Your task to perform on an android device: Go to notification settings Image 0: 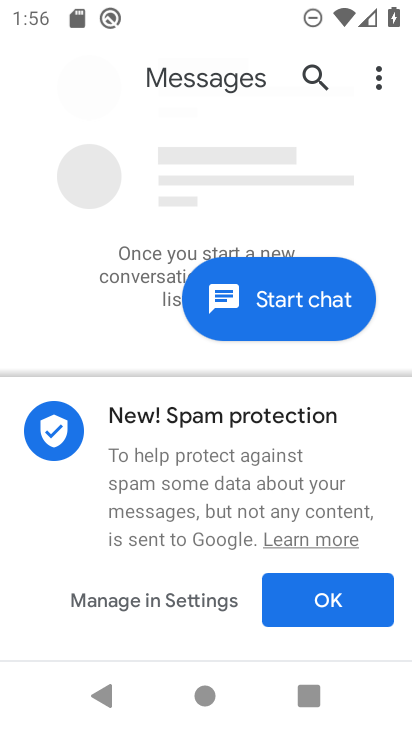
Step 0: press home button
Your task to perform on an android device: Go to notification settings Image 1: 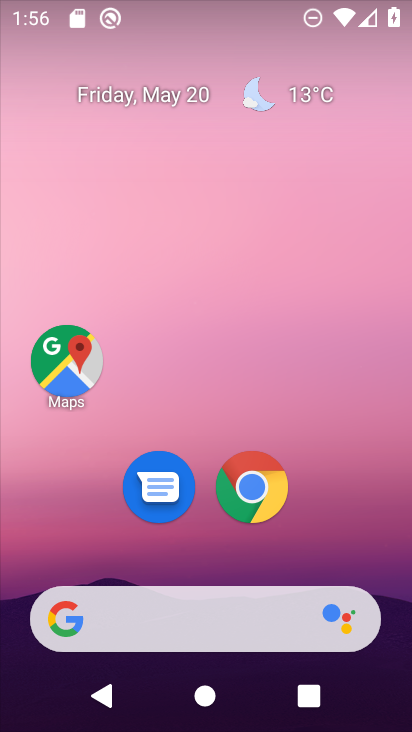
Step 1: drag from (222, 486) to (255, 143)
Your task to perform on an android device: Go to notification settings Image 2: 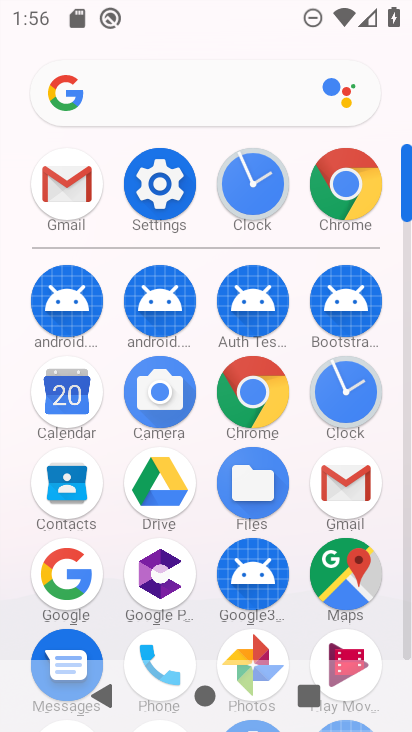
Step 2: click (157, 181)
Your task to perform on an android device: Go to notification settings Image 3: 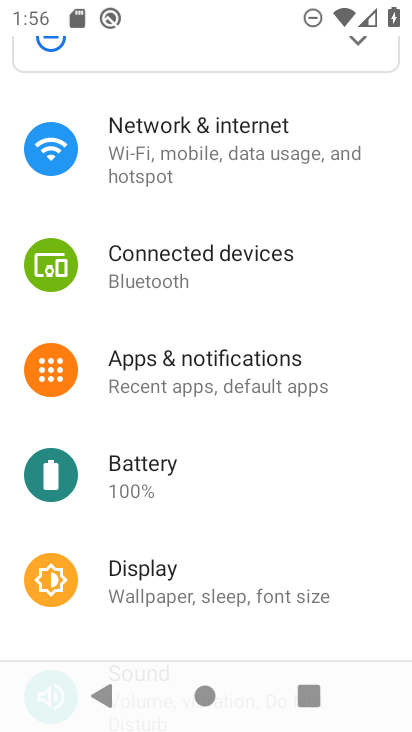
Step 3: click (256, 371)
Your task to perform on an android device: Go to notification settings Image 4: 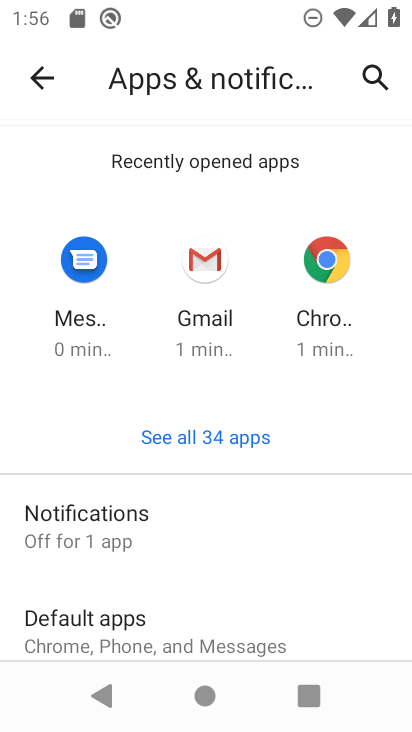
Step 4: click (163, 510)
Your task to perform on an android device: Go to notification settings Image 5: 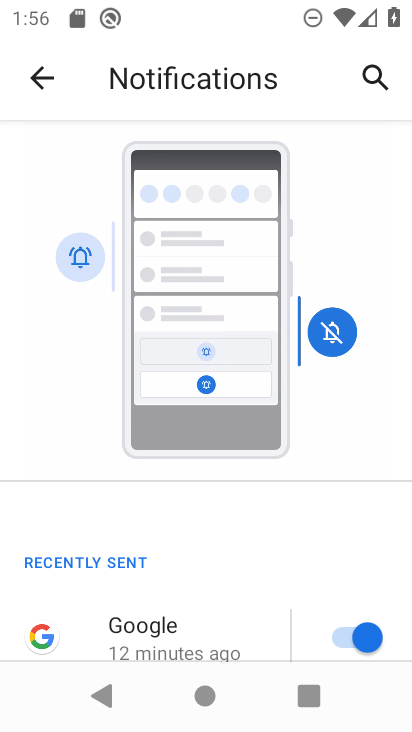
Step 5: drag from (227, 624) to (221, 168)
Your task to perform on an android device: Go to notification settings Image 6: 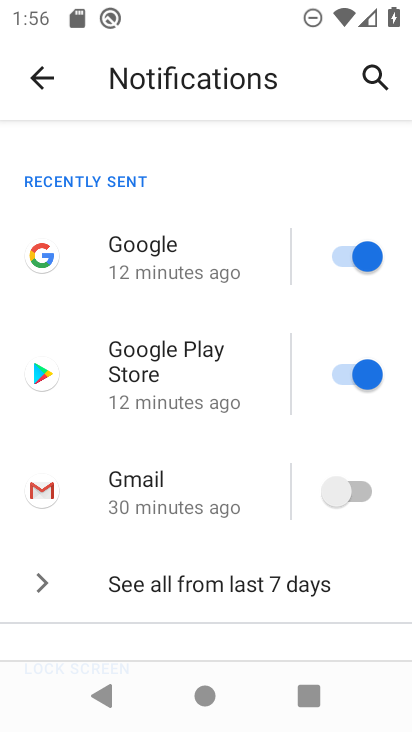
Step 6: drag from (211, 627) to (238, 238)
Your task to perform on an android device: Go to notification settings Image 7: 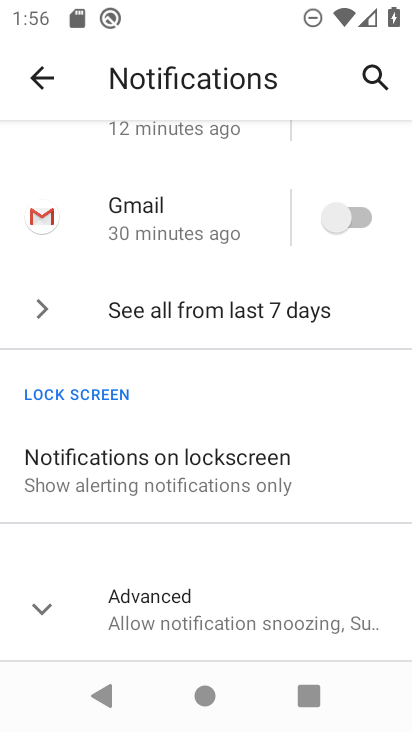
Step 7: click (35, 606)
Your task to perform on an android device: Go to notification settings Image 8: 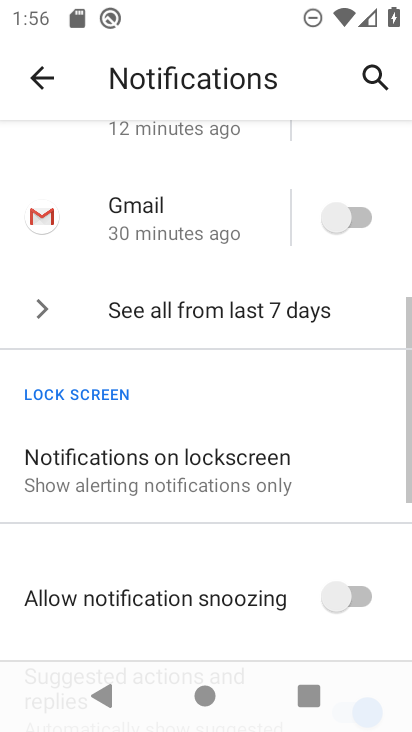
Step 8: task complete